Your task to perform on an android device: delete a single message in the gmail app Image 0: 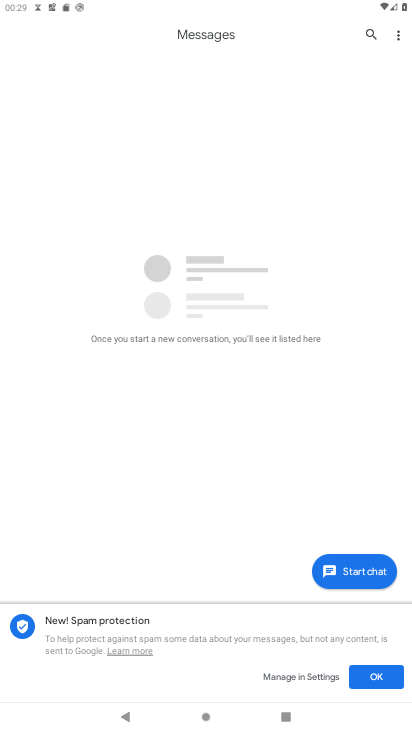
Step 0: press home button
Your task to perform on an android device: delete a single message in the gmail app Image 1: 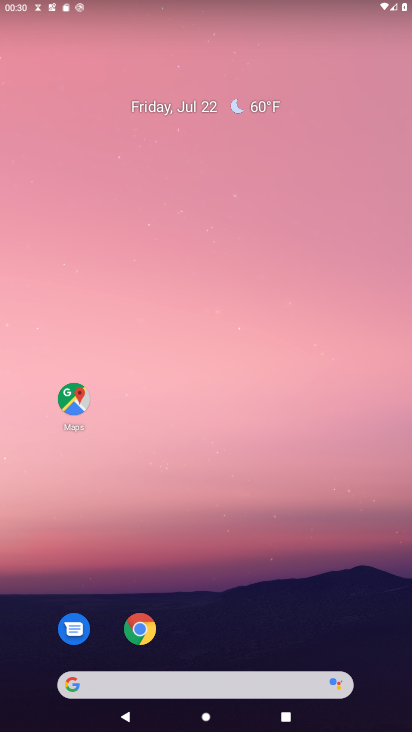
Step 1: drag from (176, 643) to (192, 194)
Your task to perform on an android device: delete a single message in the gmail app Image 2: 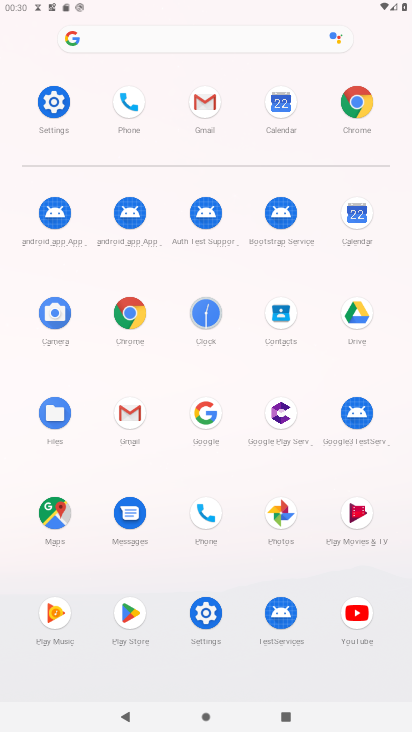
Step 2: click (133, 400)
Your task to perform on an android device: delete a single message in the gmail app Image 3: 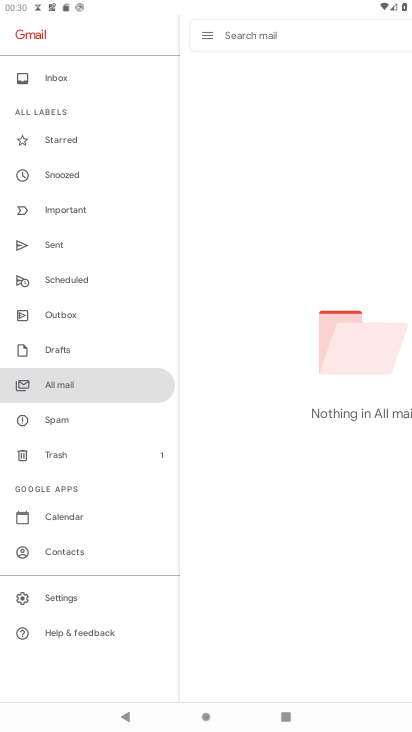
Step 3: task complete